Your task to perform on an android device: Open the web browser Image 0: 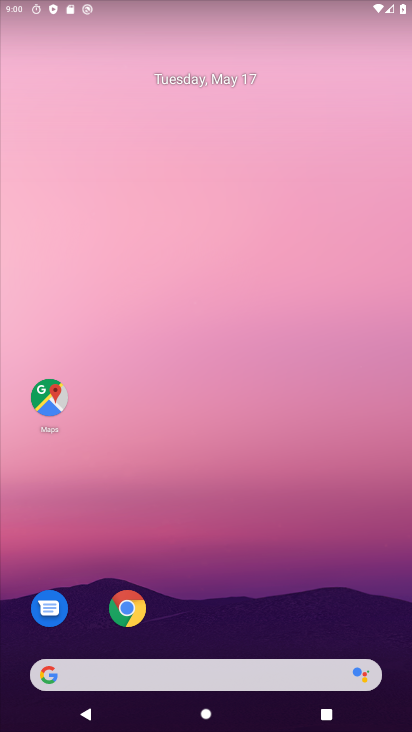
Step 0: drag from (269, 611) to (337, 106)
Your task to perform on an android device: Open the web browser Image 1: 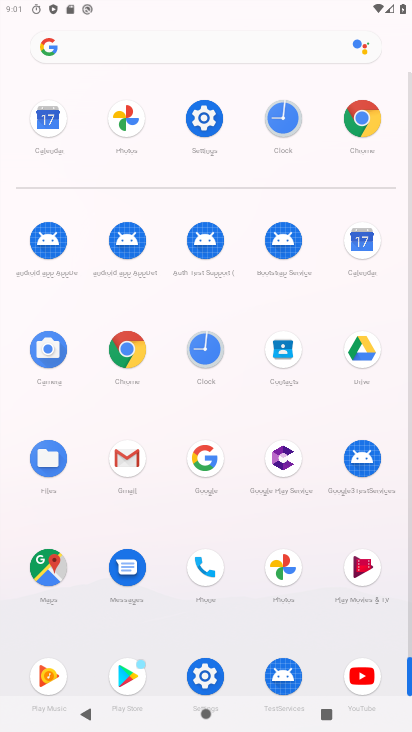
Step 1: click (130, 350)
Your task to perform on an android device: Open the web browser Image 2: 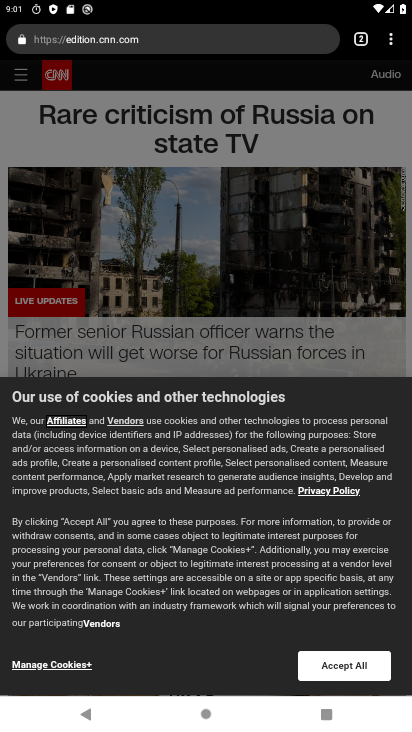
Step 2: click (332, 671)
Your task to perform on an android device: Open the web browser Image 3: 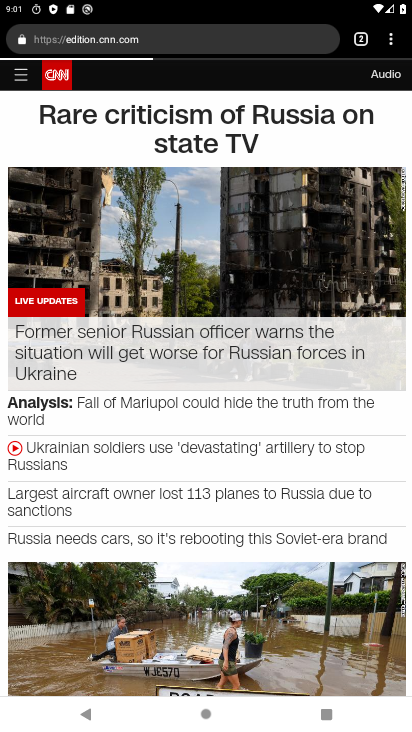
Step 3: task complete